Your task to perform on an android device: check google app version Image 0: 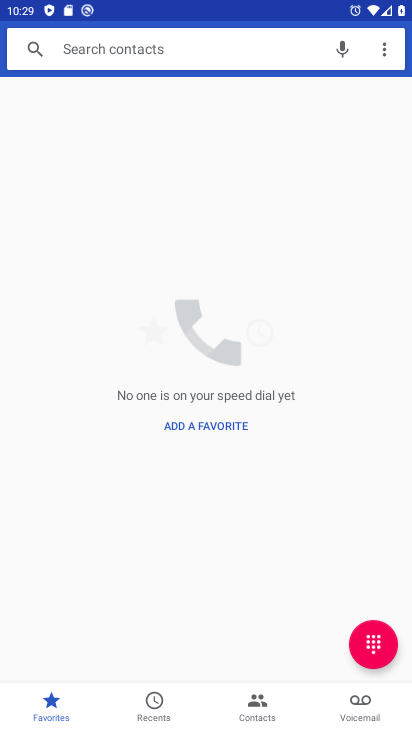
Step 0: press home button
Your task to perform on an android device: check google app version Image 1: 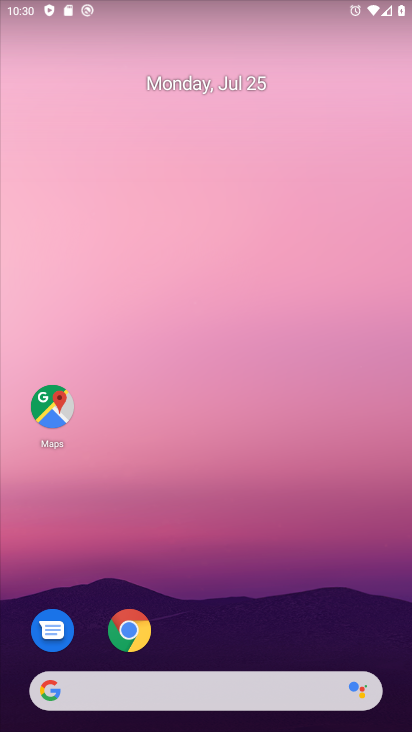
Step 1: drag from (199, 686) to (124, 98)
Your task to perform on an android device: check google app version Image 2: 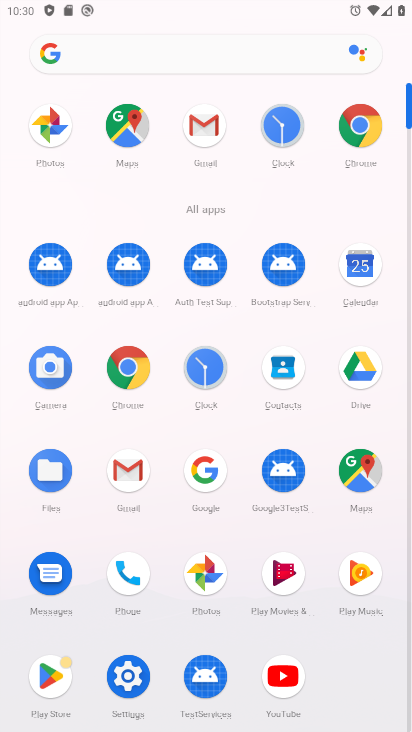
Step 2: click (207, 472)
Your task to perform on an android device: check google app version Image 3: 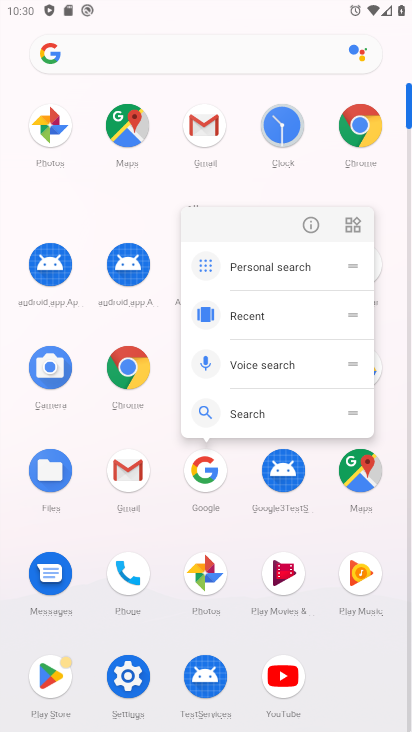
Step 3: click (310, 227)
Your task to perform on an android device: check google app version Image 4: 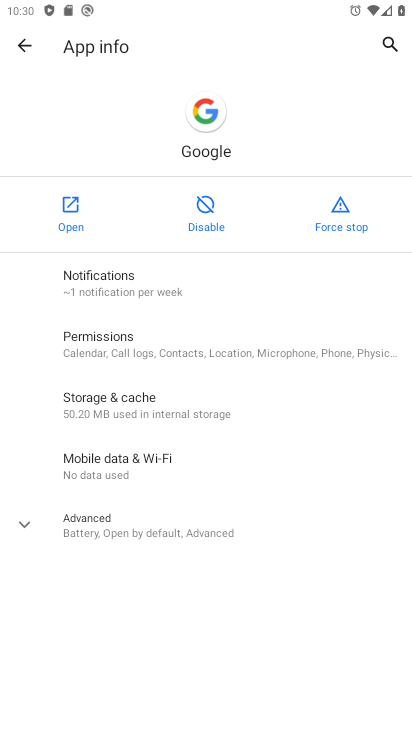
Step 4: click (159, 519)
Your task to perform on an android device: check google app version Image 5: 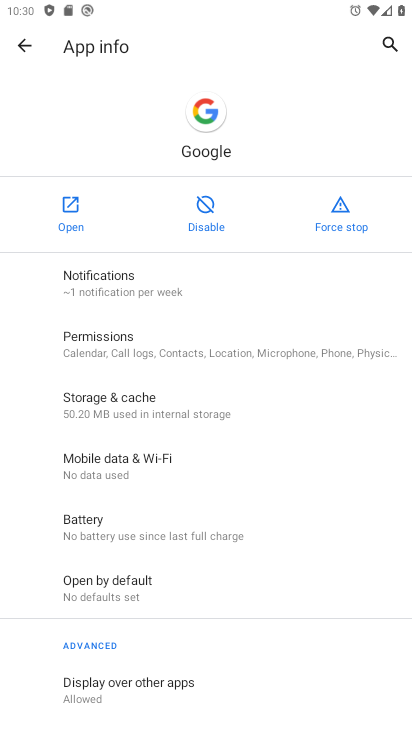
Step 5: task complete